Your task to perform on an android device: turn on translation in the chrome app Image 0: 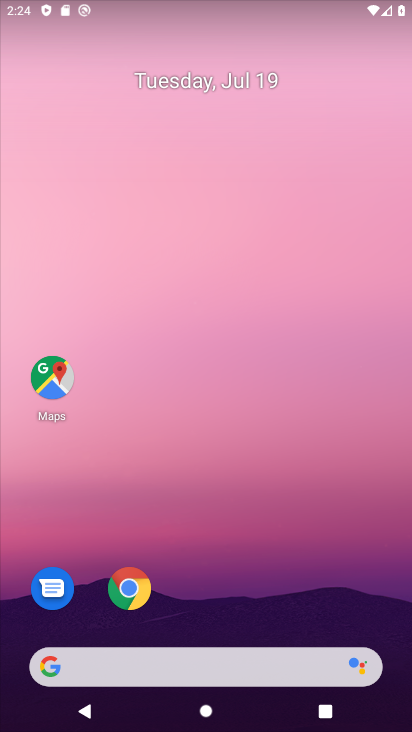
Step 0: click (122, 586)
Your task to perform on an android device: turn on translation in the chrome app Image 1: 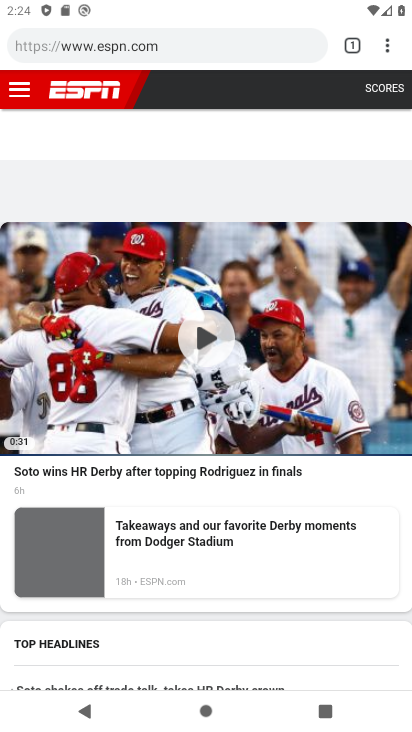
Step 1: click (386, 45)
Your task to perform on an android device: turn on translation in the chrome app Image 2: 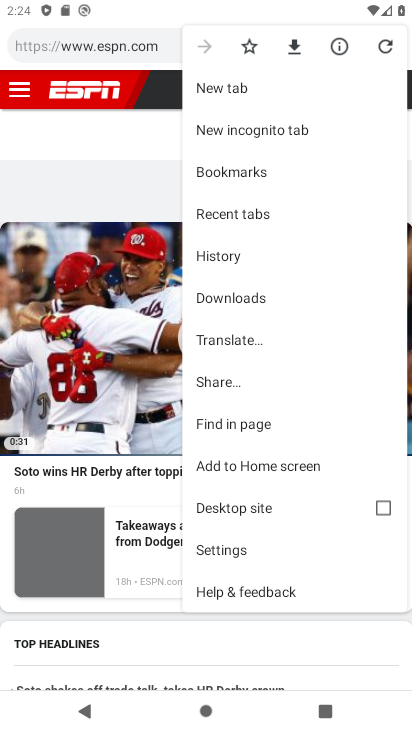
Step 2: click (217, 551)
Your task to perform on an android device: turn on translation in the chrome app Image 3: 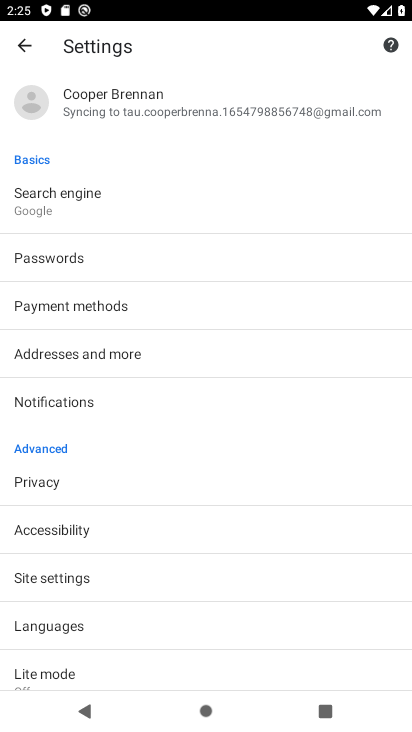
Step 3: click (49, 625)
Your task to perform on an android device: turn on translation in the chrome app Image 4: 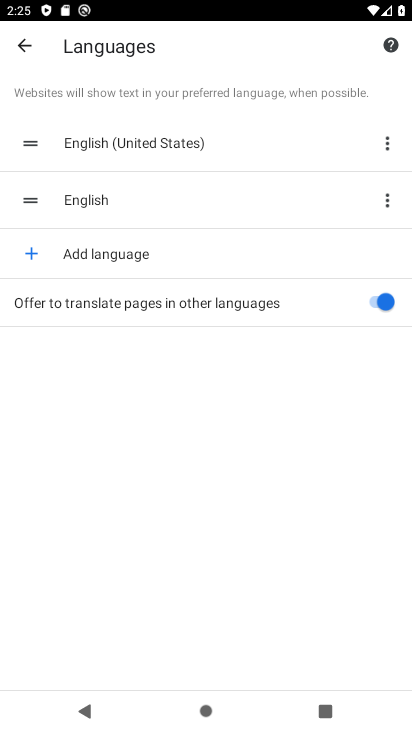
Step 4: task complete